Your task to perform on an android device: Open sound settings Image 0: 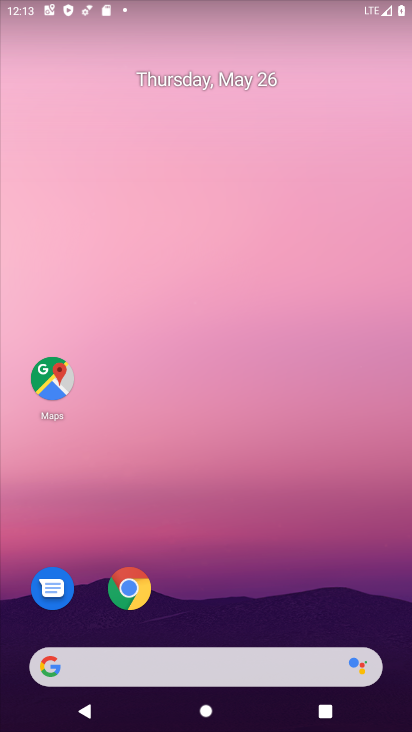
Step 0: drag from (212, 550) to (126, 28)
Your task to perform on an android device: Open sound settings Image 1: 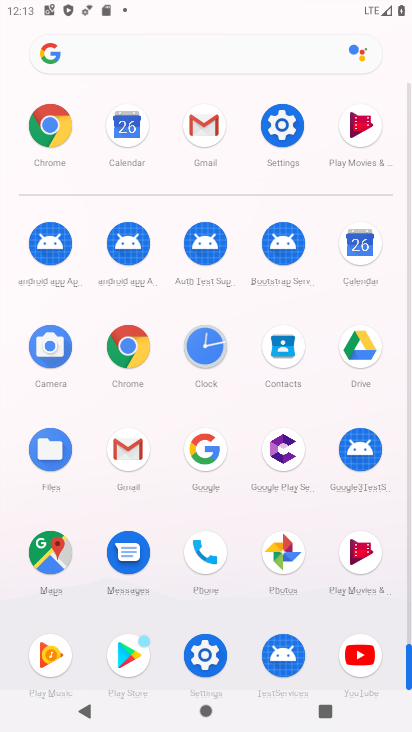
Step 1: drag from (12, 479) to (3, 190)
Your task to perform on an android device: Open sound settings Image 2: 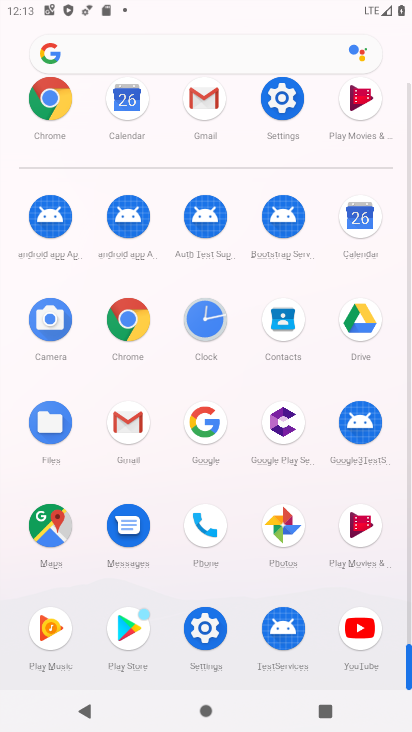
Step 2: click (200, 629)
Your task to perform on an android device: Open sound settings Image 3: 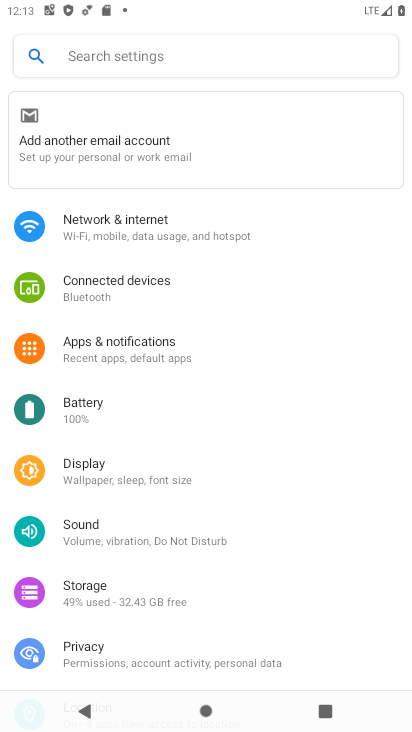
Step 3: drag from (242, 571) to (265, 180)
Your task to perform on an android device: Open sound settings Image 4: 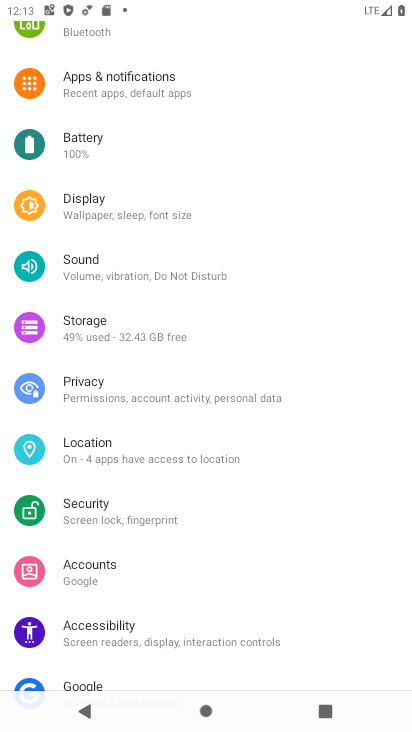
Step 4: click (122, 277)
Your task to perform on an android device: Open sound settings Image 5: 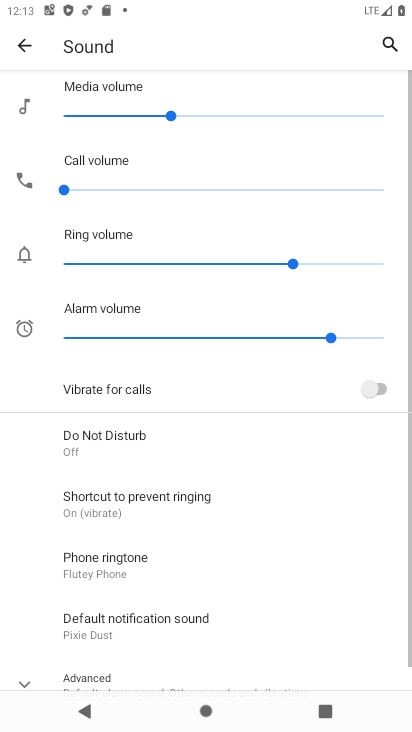
Step 5: drag from (201, 565) to (199, 118)
Your task to perform on an android device: Open sound settings Image 6: 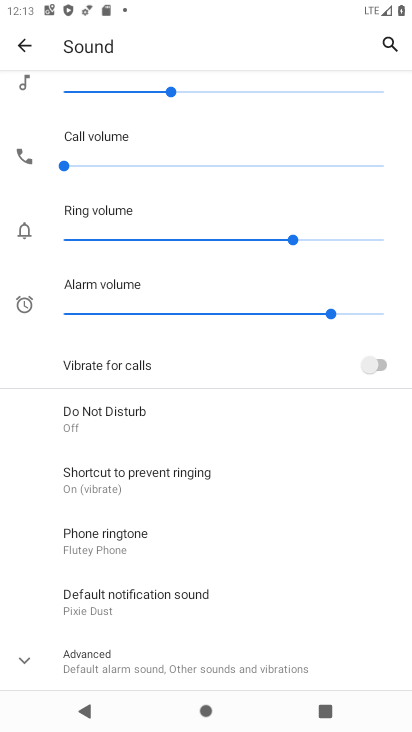
Step 6: click (16, 658)
Your task to perform on an android device: Open sound settings Image 7: 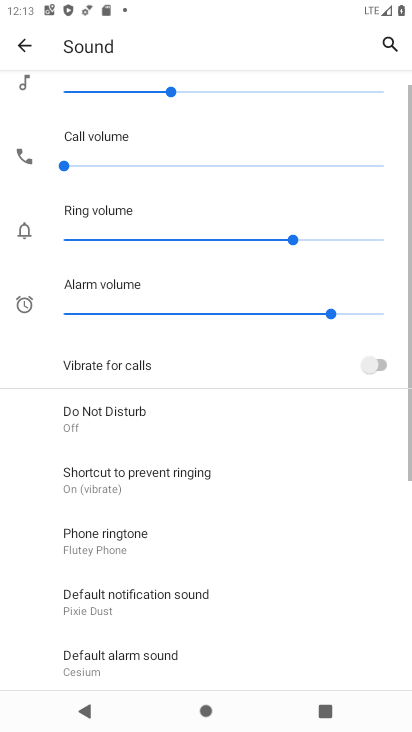
Step 7: task complete